Your task to perform on an android device: Open Google Image 0: 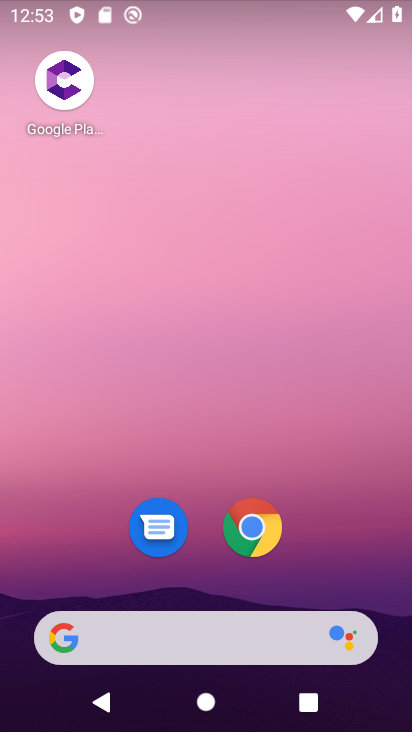
Step 0: drag from (372, 596) to (349, 85)
Your task to perform on an android device: Open Google Image 1: 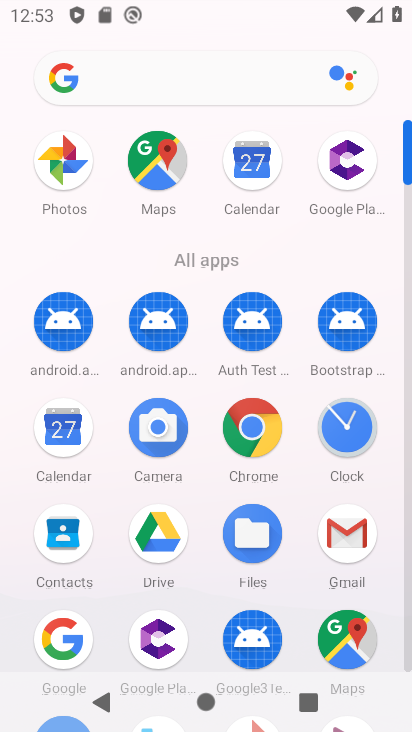
Step 1: drag from (404, 180) to (411, 122)
Your task to perform on an android device: Open Google Image 2: 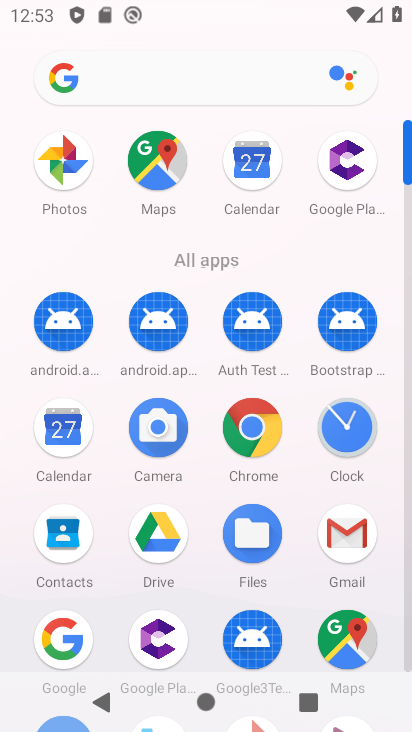
Step 2: click (78, 637)
Your task to perform on an android device: Open Google Image 3: 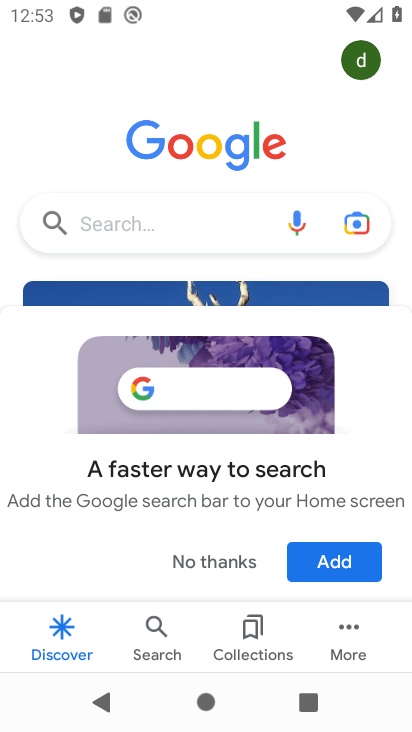
Step 3: task complete